Your task to perform on an android device: change the clock display to digital Image 0: 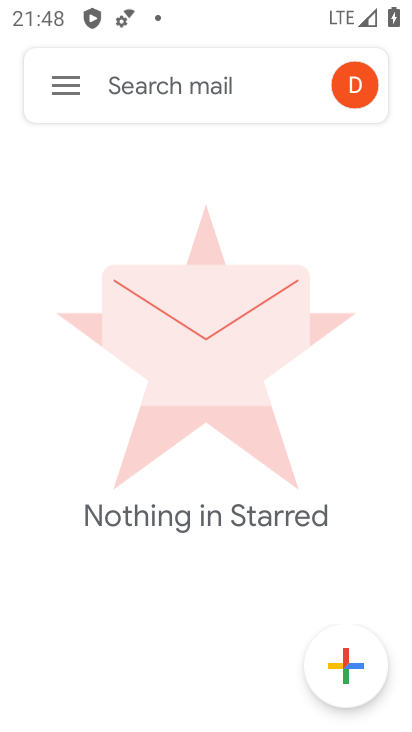
Step 0: press home button
Your task to perform on an android device: change the clock display to digital Image 1: 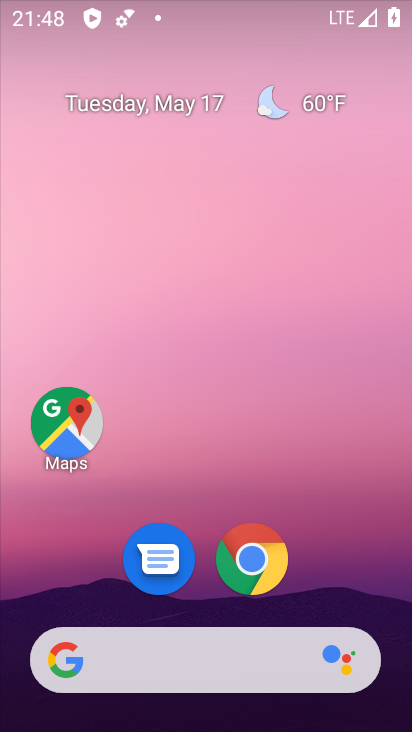
Step 1: drag from (290, 463) to (329, 1)
Your task to perform on an android device: change the clock display to digital Image 2: 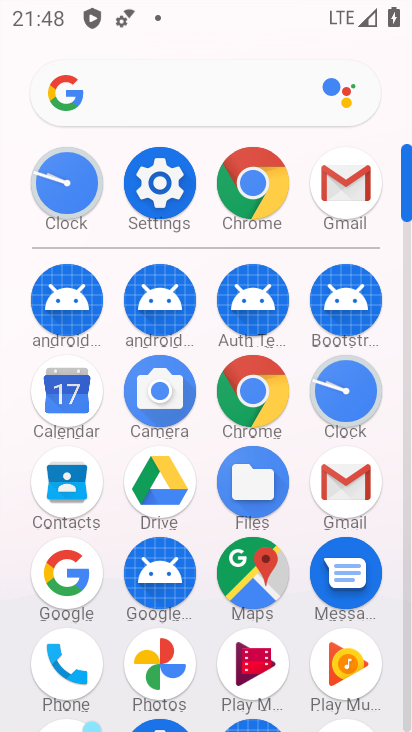
Step 2: click (349, 383)
Your task to perform on an android device: change the clock display to digital Image 3: 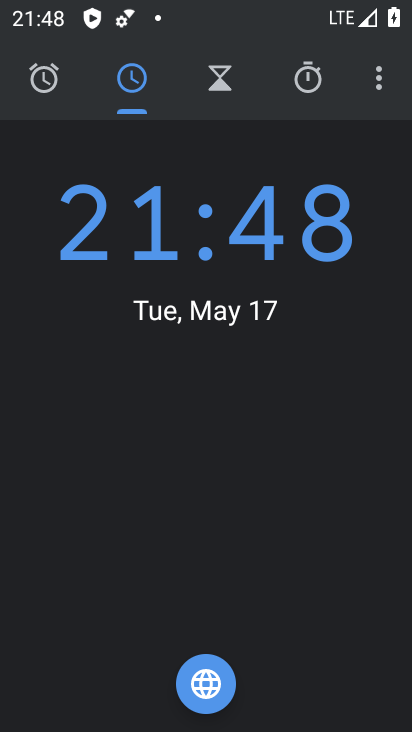
Step 3: drag from (376, 69) to (226, 148)
Your task to perform on an android device: change the clock display to digital Image 4: 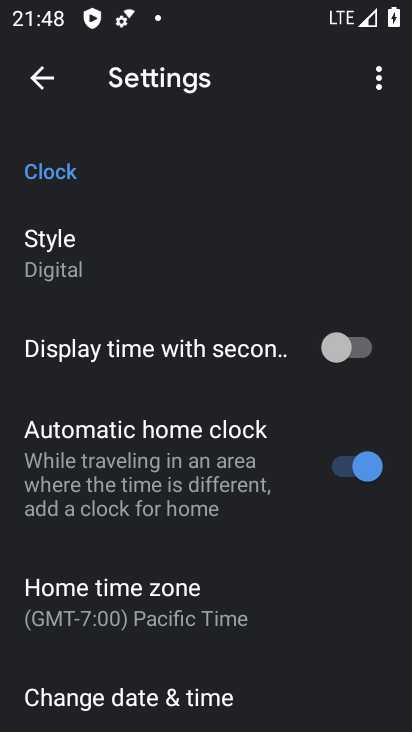
Step 4: click (60, 254)
Your task to perform on an android device: change the clock display to digital Image 5: 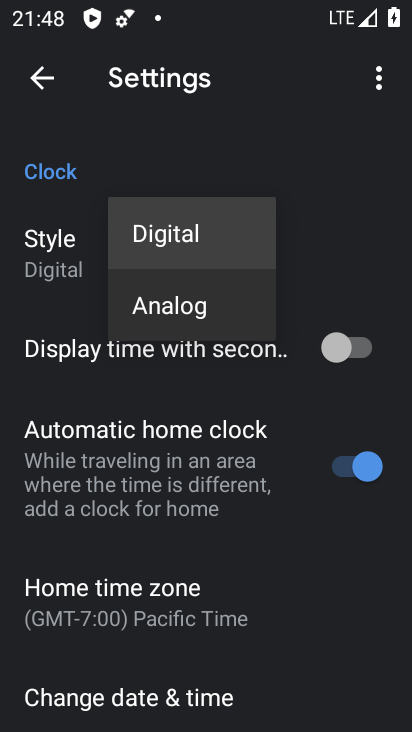
Step 5: task complete